Your task to perform on an android device: set default search engine in the chrome app Image 0: 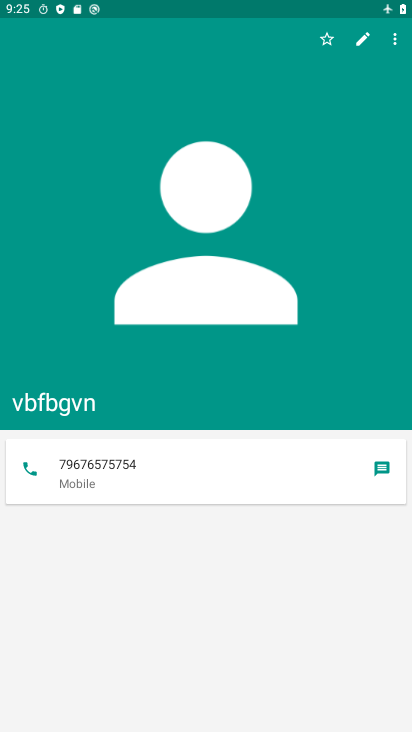
Step 0: press home button
Your task to perform on an android device: set default search engine in the chrome app Image 1: 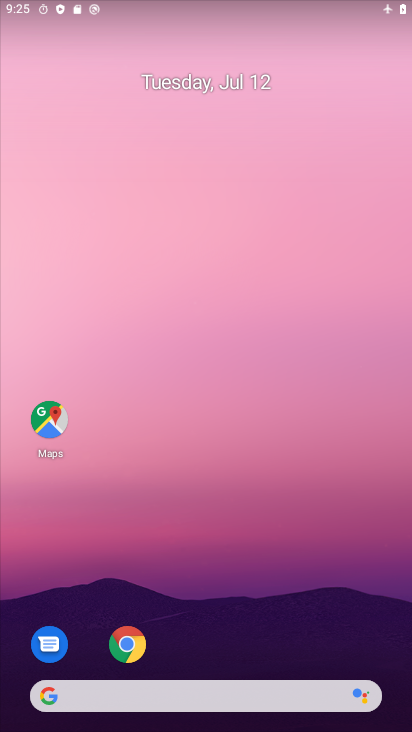
Step 1: click (124, 646)
Your task to perform on an android device: set default search engine in the chrome app Image 2: 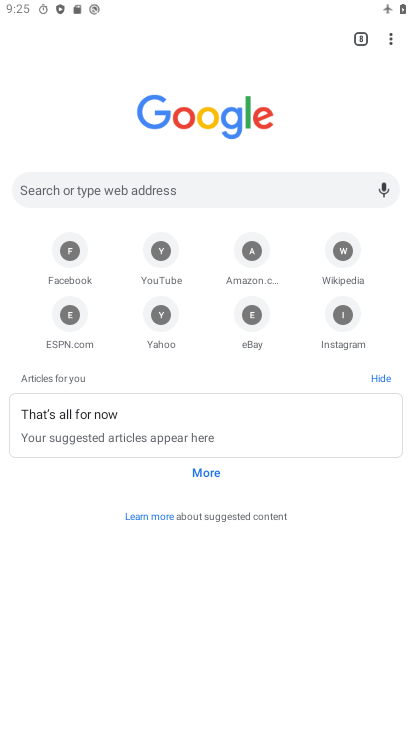
Step 2: click (385, 44)
Your task to perform on an android device: set default search engine in the chrome app Image 3: 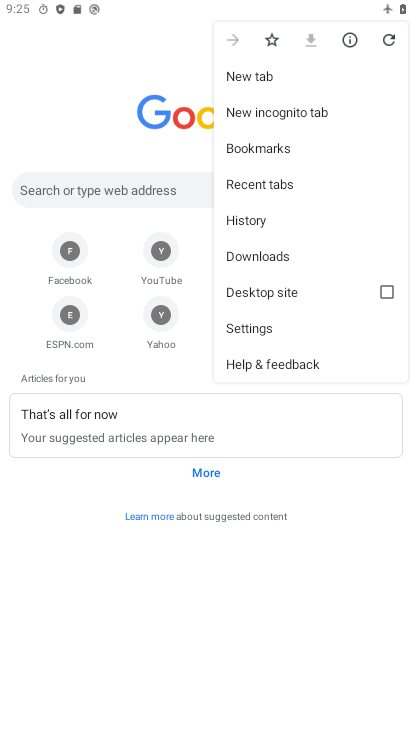
Step 3: click (258, 335)
Your task to perform on an android device: set default search engine in the chrome app Image 4: 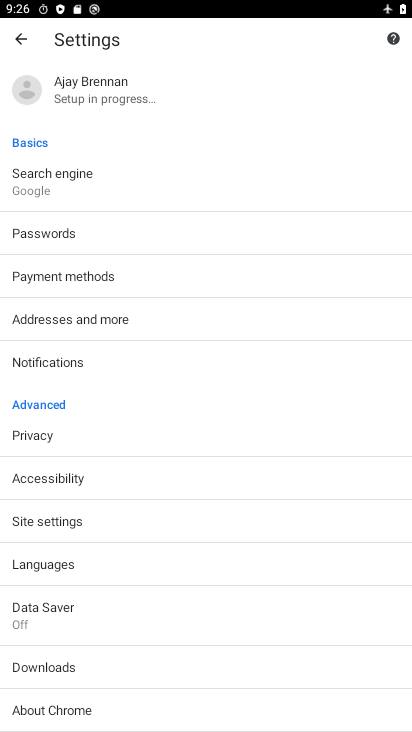
Step 4: click (115, 180)
Your task to perform on an android device: set default search engine in the chrome app Image 5: 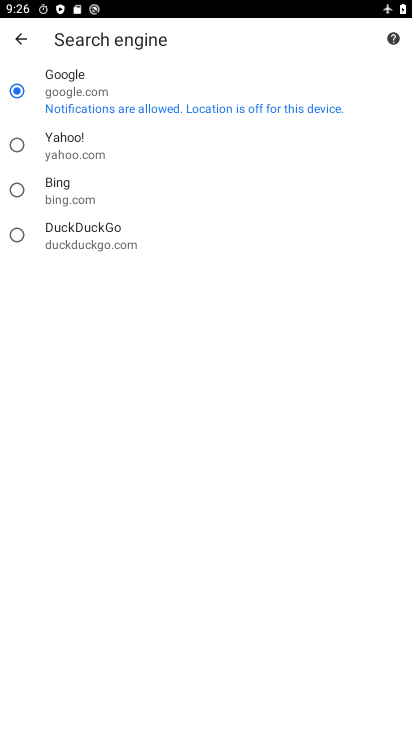
Step 5: task complete